Your task to perform on an android device: Go to Wikipedia Image 0: 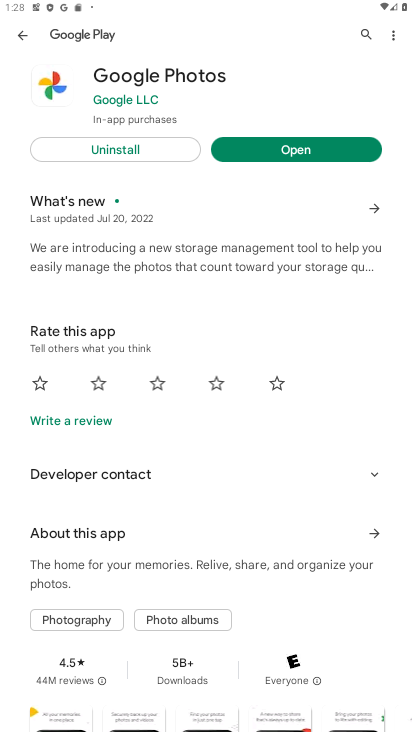
Step 0: press back button
Your task to perform on an android device: Go to Wikipedia Image 1: 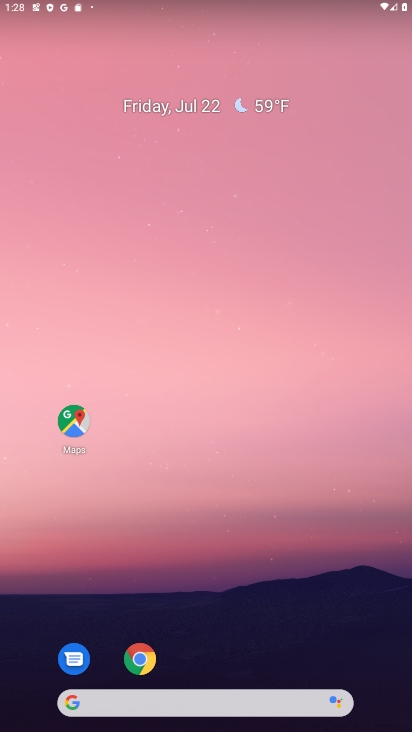
Step 1: drag from (269, 662) to (369, 4)
Your task to perform on an android device: Go to Wikipedia Image 2: 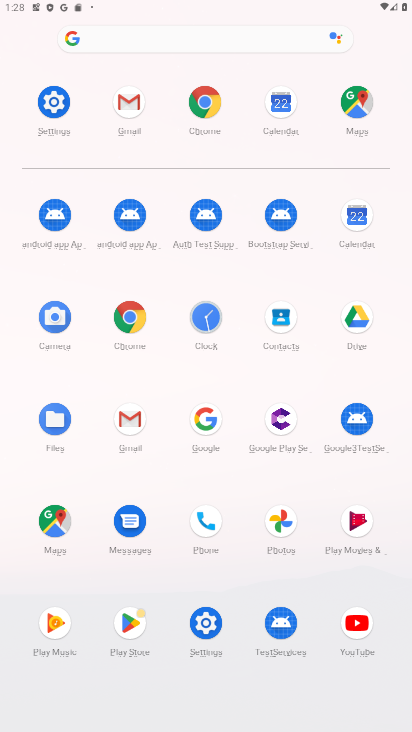
Step 2: click (143, 320)
Your task to perform on an android device: Go to Wikipedia Image 3: 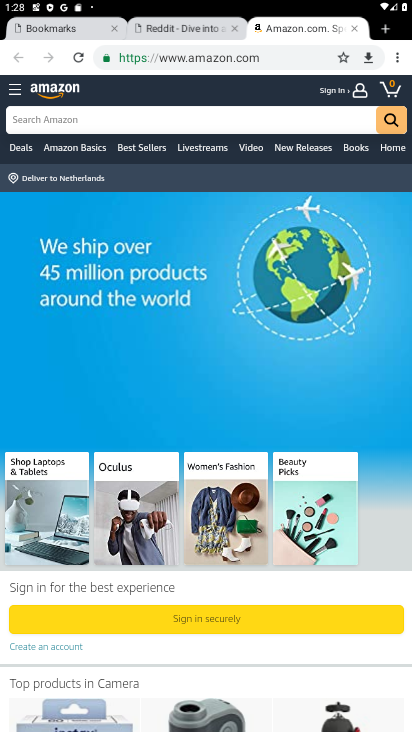
Step 3: click (116, 28)
Your task to perform on an android device: Go to Wikipedia Image 4: 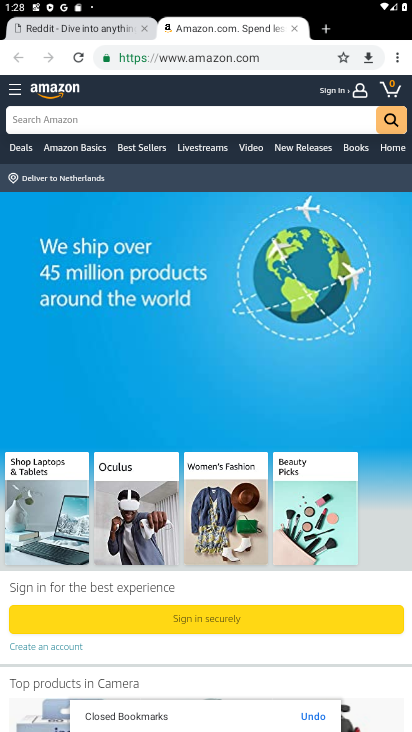
Step 4: click (138, 26)
Your task to perform on an android device: Go to Wikipedia Image 5: 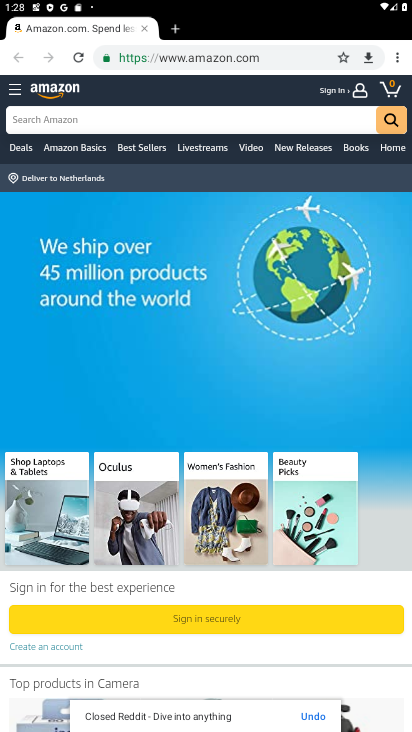
Step 5: click (172, 30)
Your task to perform on an android device: Go to Wikipedia Image 6: 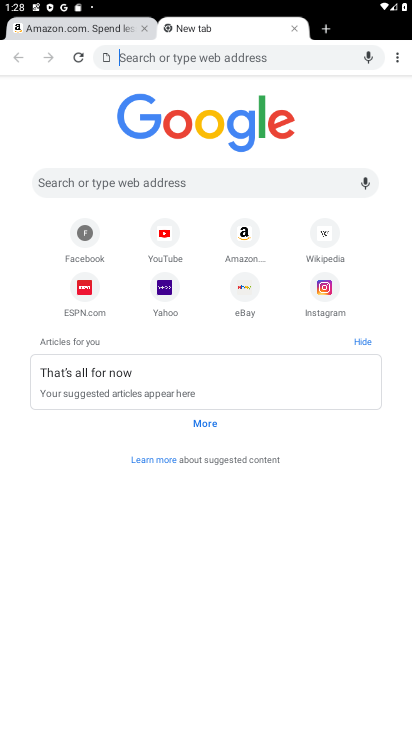
Step 6: click (328, 230)
Your task to perform on an android device: Go to Wikipedia Image 7: 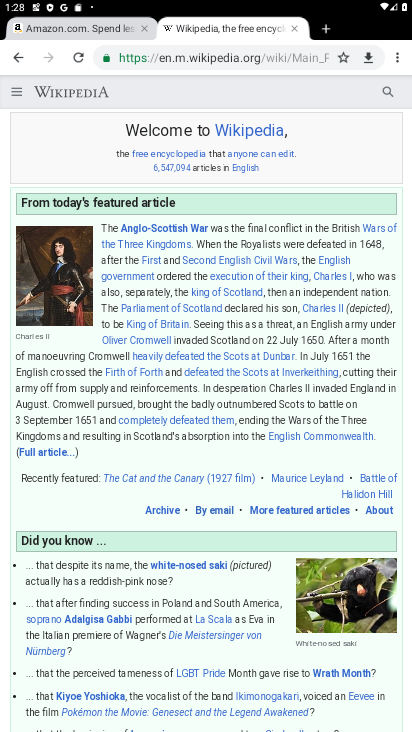
Step 7: task complete